Your task to perform on an android device: Open Reddit.com Image 0: 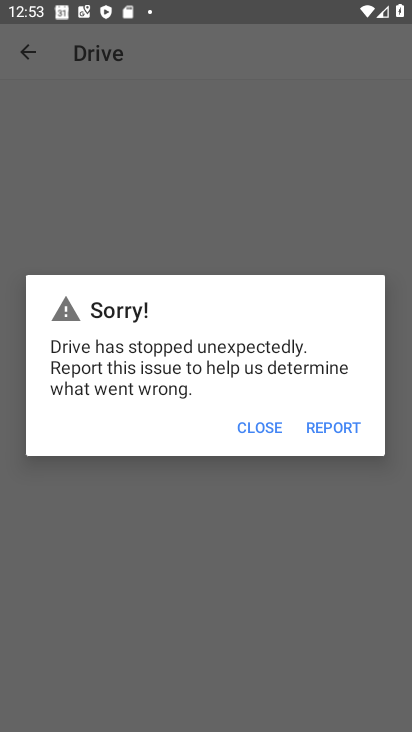
Step 0: press home button
Your task to perform on an android device: Open Reddit.com Image 1: 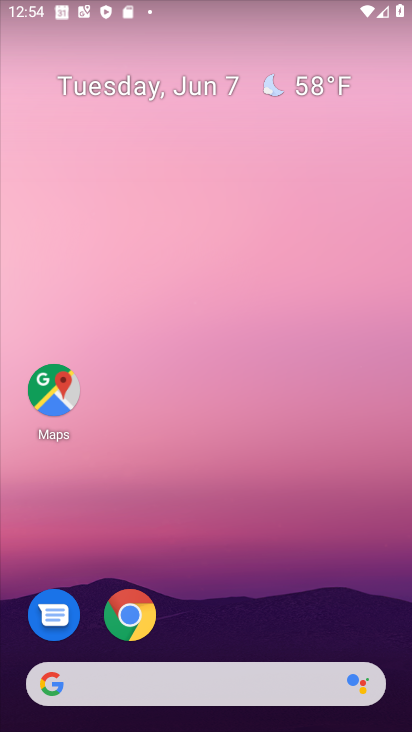
Step 1: click (130, 612)
Your task to perform on an android device: Open Reddit.com Image 2: 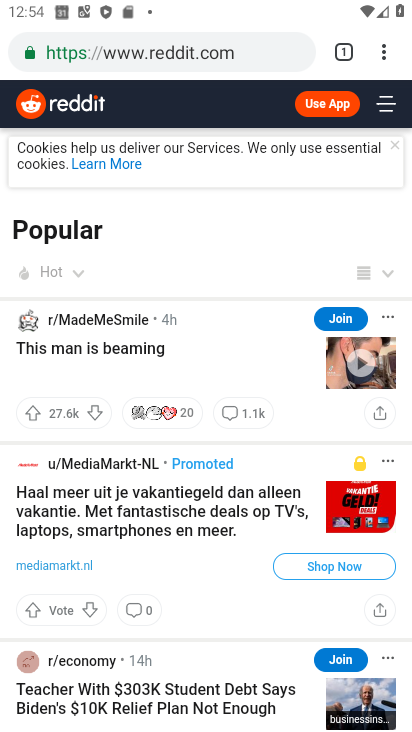
Step 2: task complete